Your task to perform on an android device: Open settings Image 0: 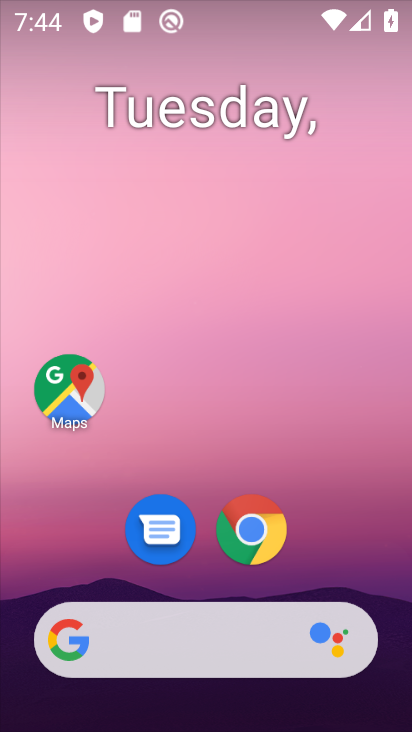
Step 0: drag from (174, 587) to (344, 134)
Your task to perform on an android device: Open settings Image 1: 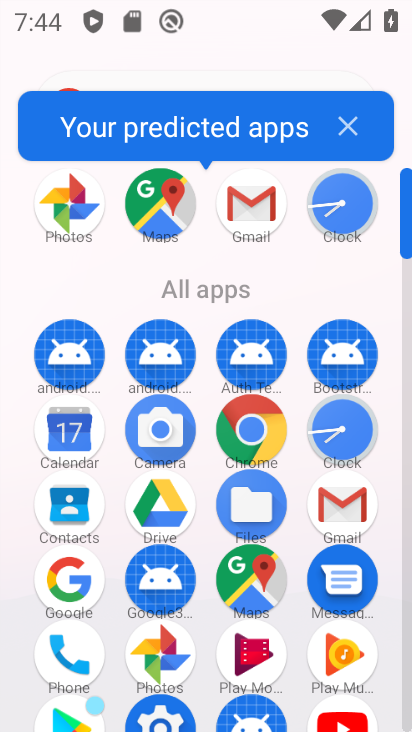
Step 1: click (173, 715)
Your task to perform on an android device: Open settings Image 2: 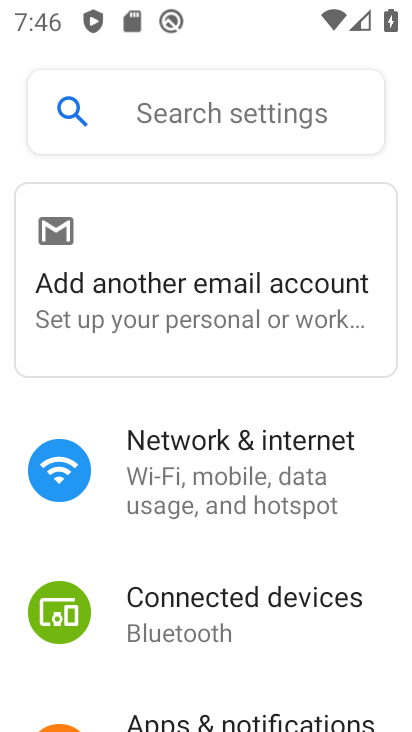
Step 2: task complete